Your task to perform on an android device: snooze an email in the gmail app Image 0: 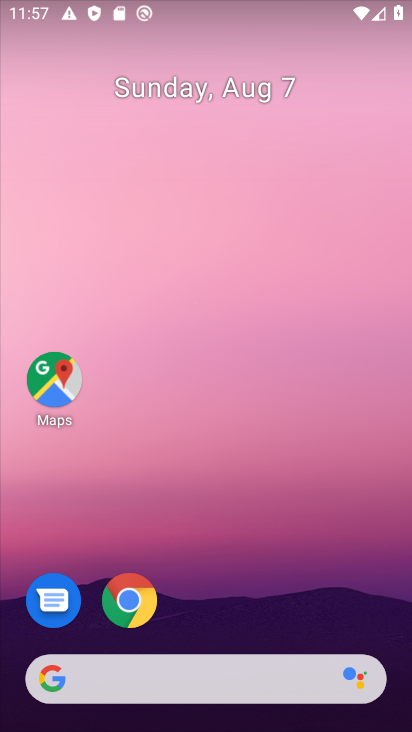
Step 0: drag from (188, 582) to (222, 76)
Your task to perform on an android device: snooze an email in the gmail app Image 1: 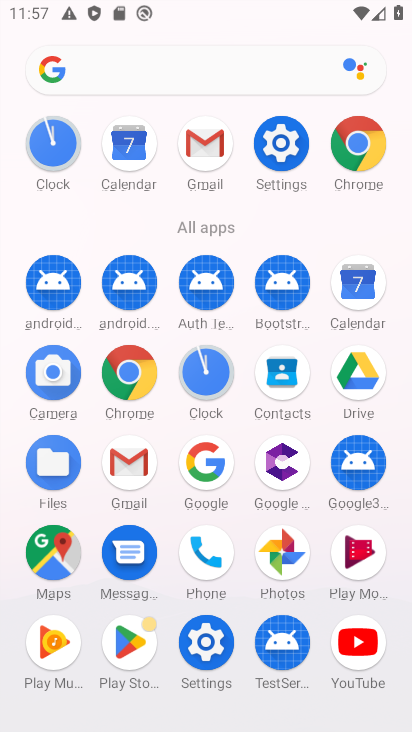
Step 1: click (203, 177)
Your task to perform on an android device: snooze an email in the gmail app Image 2: 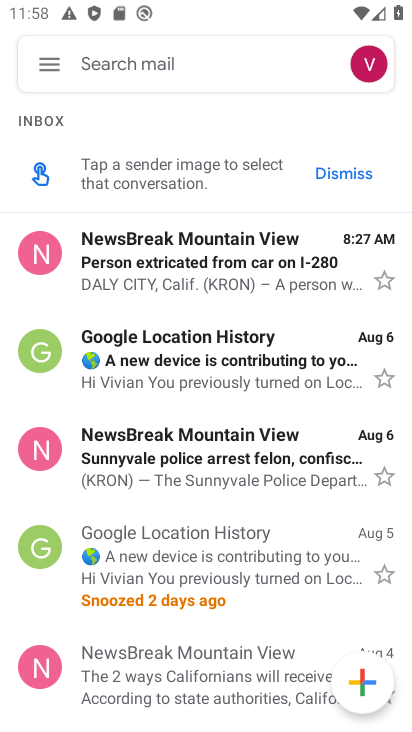
Step 2: click (199, 415)
Your task to perform on an android device: snooze an email in the gmail app Image 3: 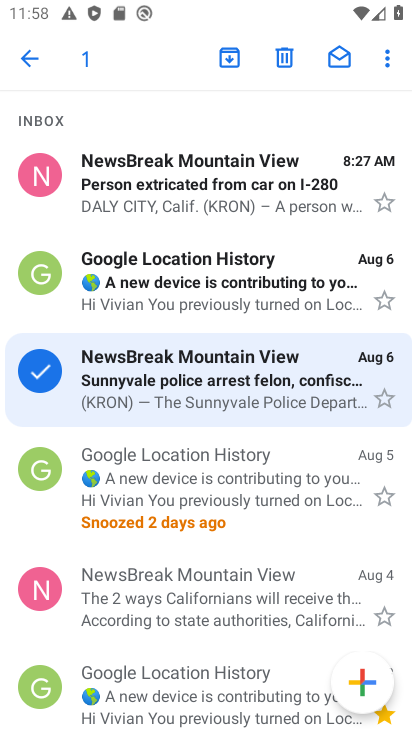
Step 3: click (386, 53)
Your task to perform on an android device: snooze an email in the gmail app Image 4: 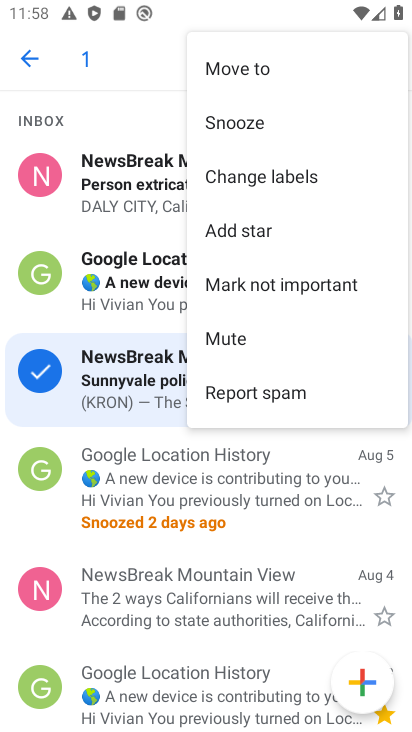
Step 4: click (231, 123)
Your task to perform on an android device: snooze an email in the gmail app Image 5: 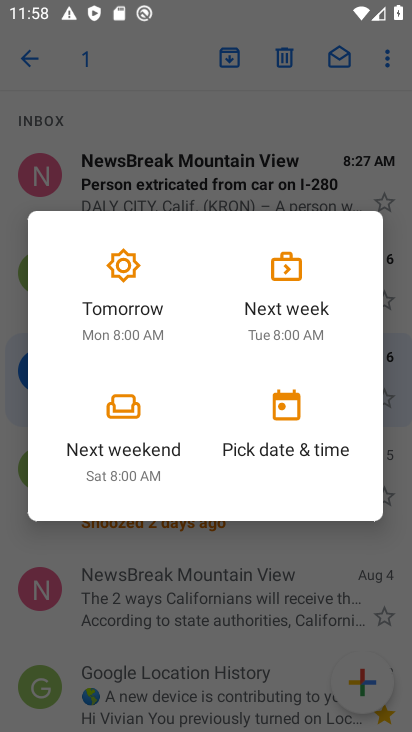
Step 5: click (131, 314)
Your task to perform on an android device: snooze an email in the gmail app Image 6: 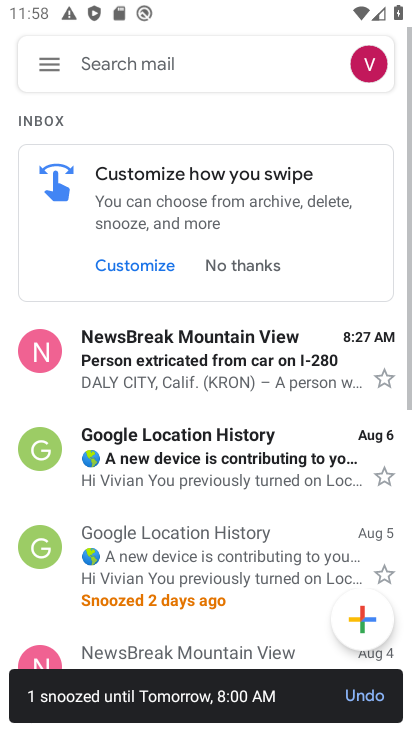
Step 6: task complete